Your task to perform on an android device: turn on the 24-hour format for clock Image 0: 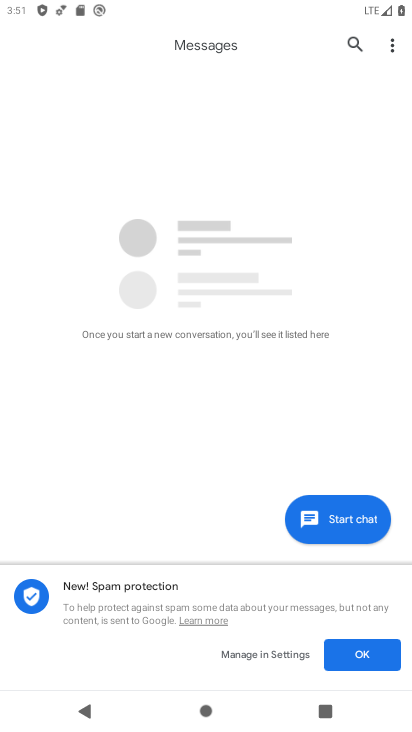
Step 0: click (362, 650)
Your task to perform on an android device: turn on the 24-hour format for clock Image 1: 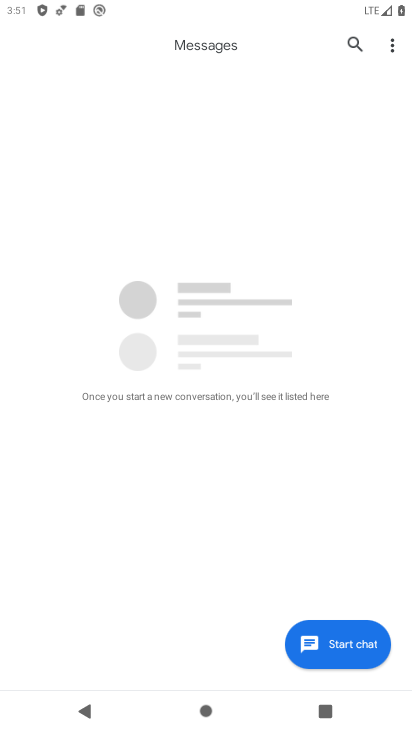
Step 1: drag from (170, 549) to (233, 123)
Your task to perform on an android device: turn on the 24-hour format for clock Image 2: 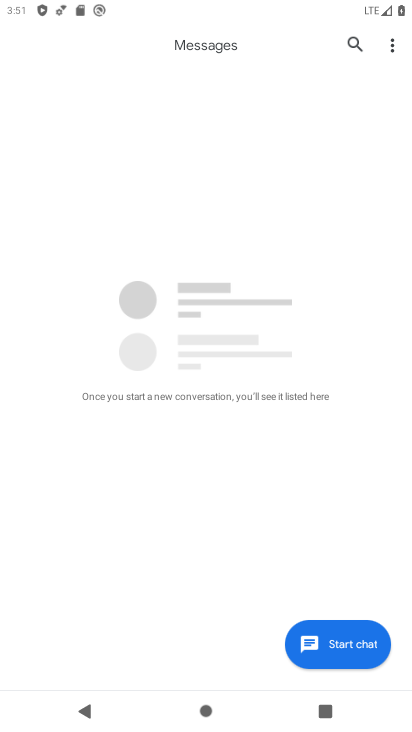
Step 2: press home button
Your task to perform on an android device: turn on the 24-hour format for clock Image 3: 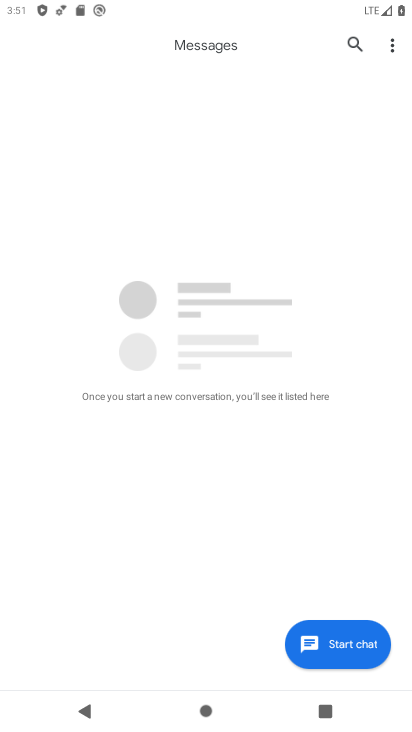
Step 3: press home button
Your task to perform on an android device: turn on the 24-hour format for clock Image 4: 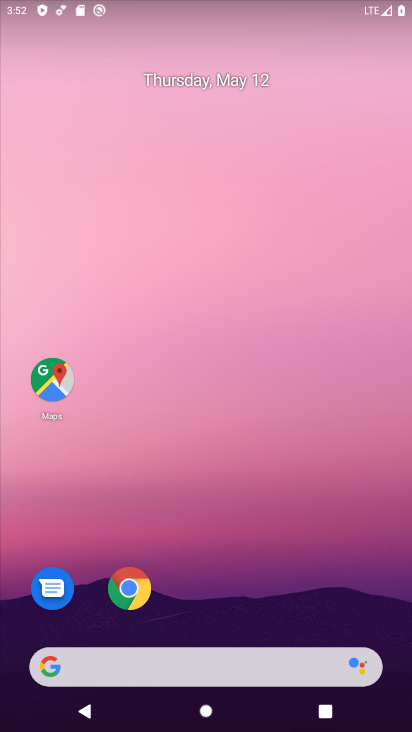
Step 4: drag from (224, 519) to (271, 76)
Your task to perform on an android device: turn on the 24-hour format for clock Image 5: 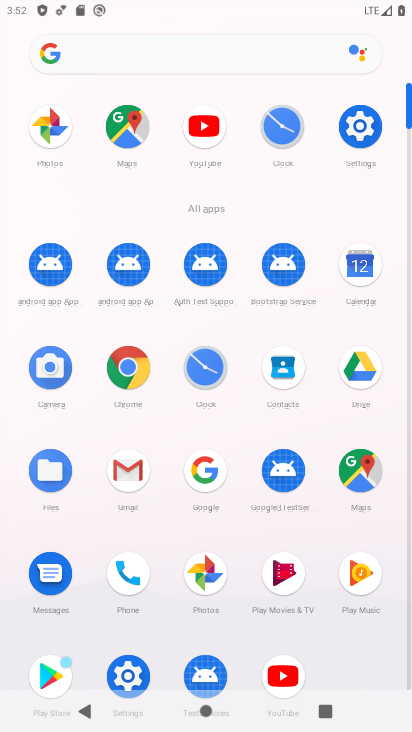
Step 5: click (217, 371)
Your task to perform on an android device: turn on the 24-hour format for clock Image 6: 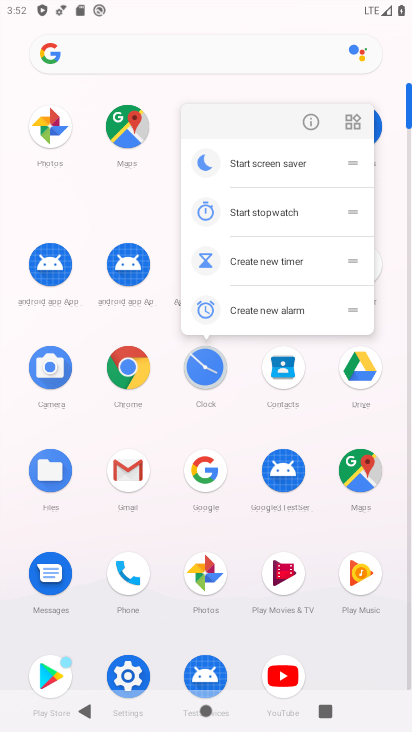
Step 6: click (310, 127)
Your task to perform on an android device: turn on the 24-hour format for clock Image 7: 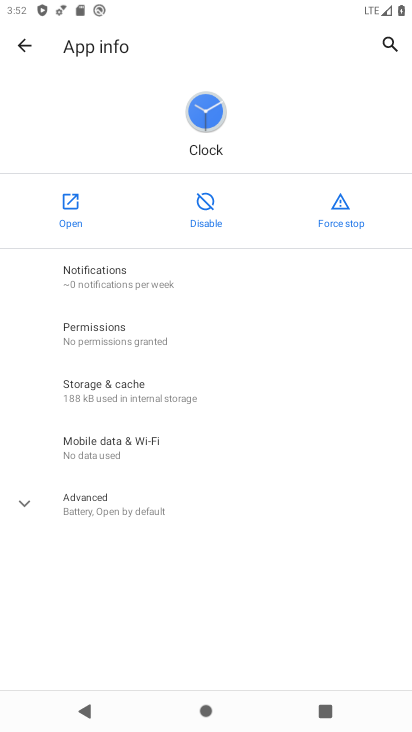
Step 7: click (74, 214)
Your task to perform on an android device: turn on the 24-hour format for clock Image 8: 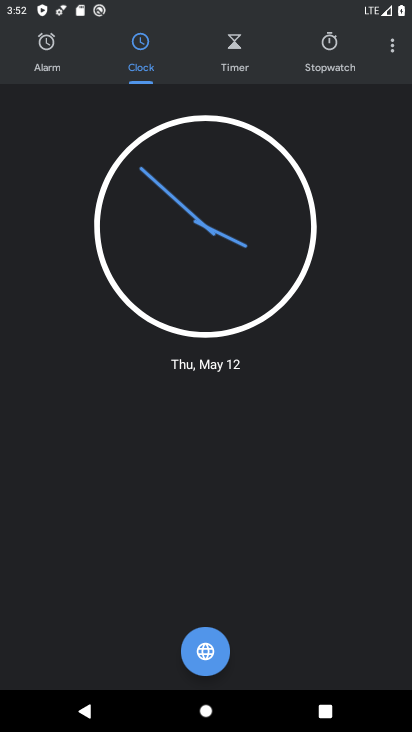
Step 8: click (325, 60)
Your task to perform on an android device: turn on the 24-hour format for clock Image 9: 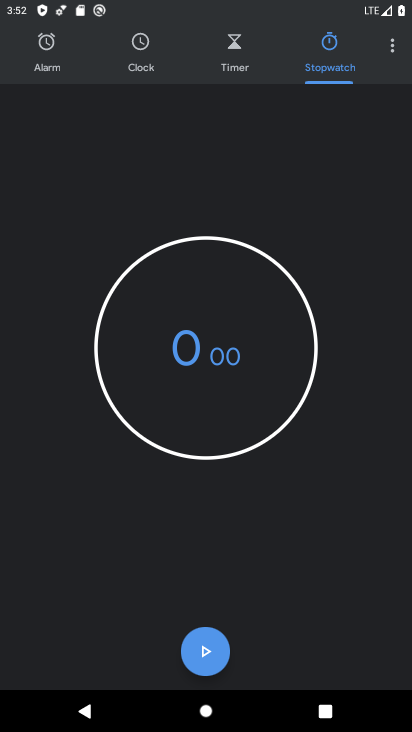
Step 9: click (379, 41)
Your task to perform on an android device: turn on the 24-hour format for clock Image 10: 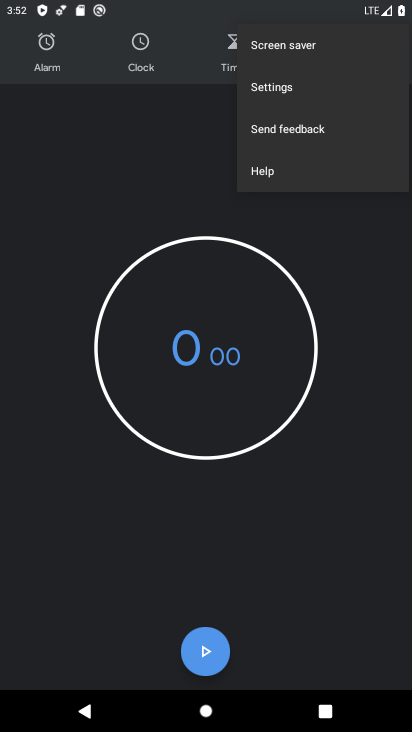
Step 10: click (292, 94)
Your task to perform on an android device: turn on the 24-hour format for clock Image 11: 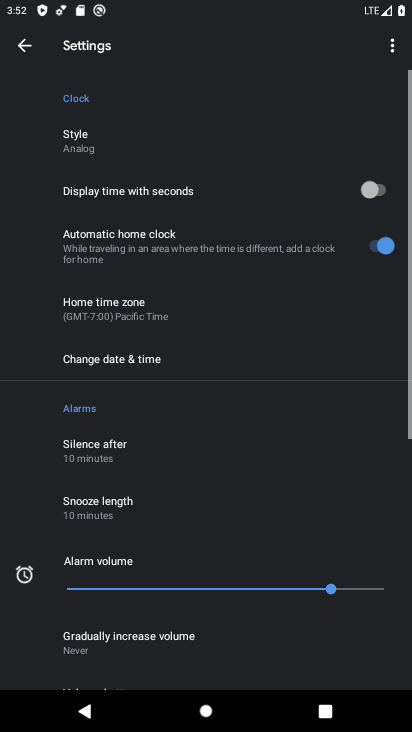
Step 11: drag from (239, 492) to (310, 82)
Your task to perform on an android device: turn on the 24-hour format for clock Image 12: 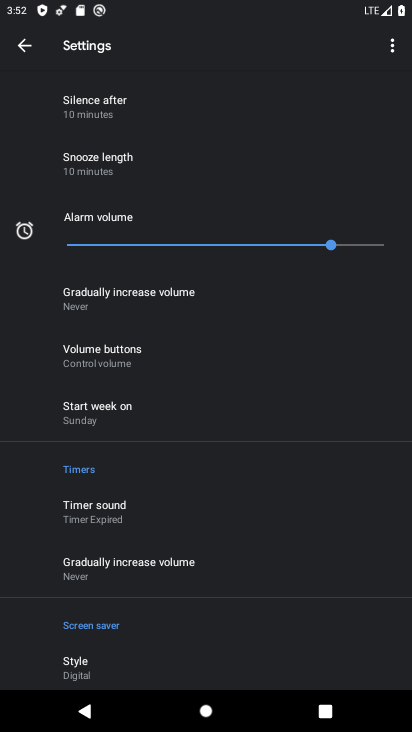
Step 12: drag from (185, 557) to (232, 234)
Your task to perform on an android device: turn on the 24-hour format for clock Image 13: 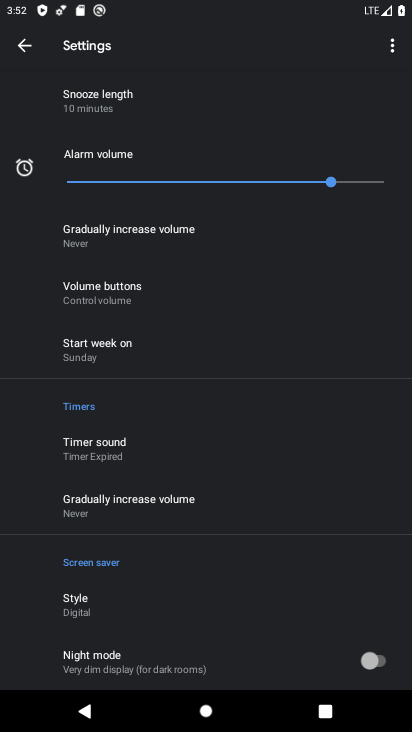
Step 13: drag from (178, 218) to (207, 613)
Your task to perform on an android device: turn on the 24-hour format for clock Image 14: 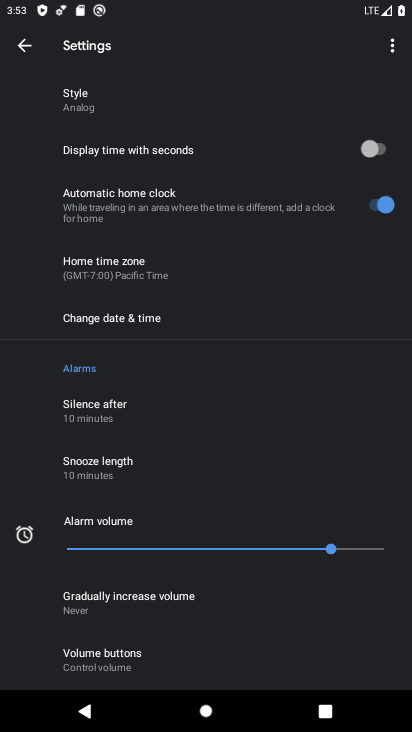
Step 14: click (152, 314)
Your task to perform on an android device: turn on the 24-hour format for clock Image 15: 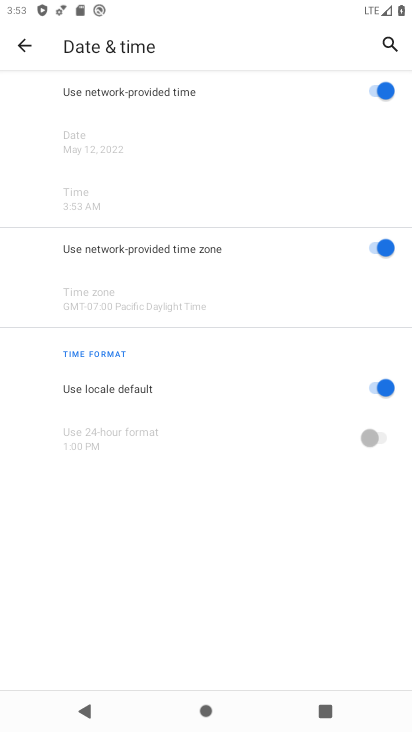
Step 15: click (383, 393)
Your task to perform on an android device: turn on the 24-hour format for clock Image 16: 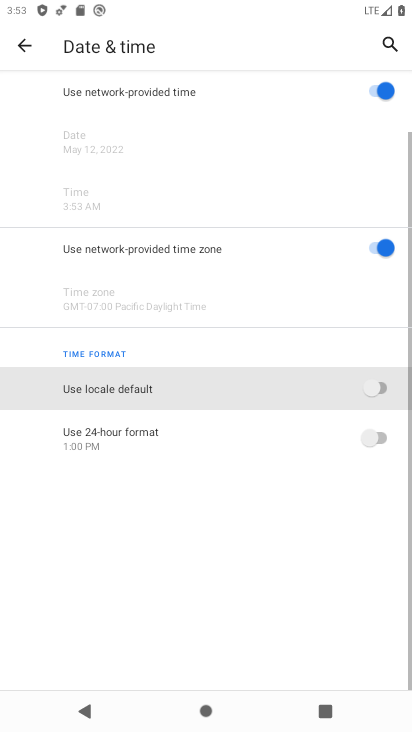
Step 16: click (363, 445)
Your task to perform on an android device: turn on the 24-hour format for clock Image 17: 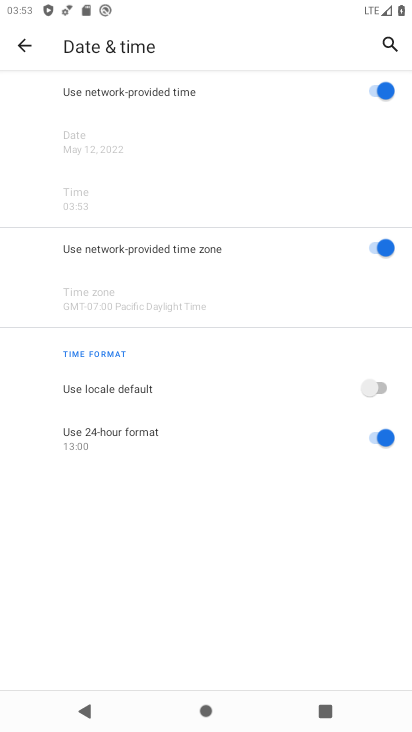
Step 17: task complete